Your task to perform on an android device: turn on data saver in the chrome app Image 0: 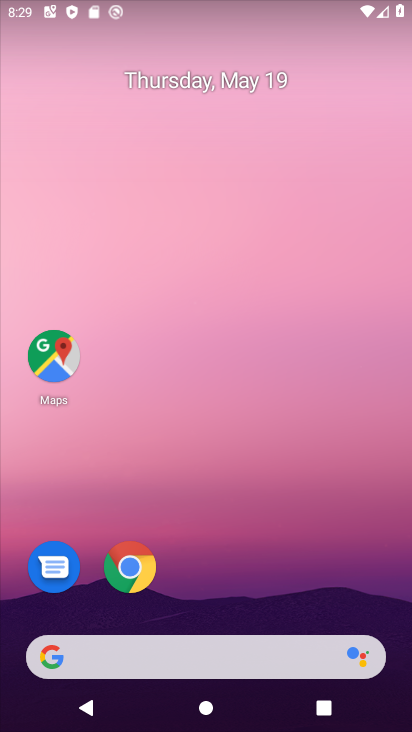
Step 0: click (137, 568)
Your task to perform on an android device: turn on data saver in the chrome app Image 1: 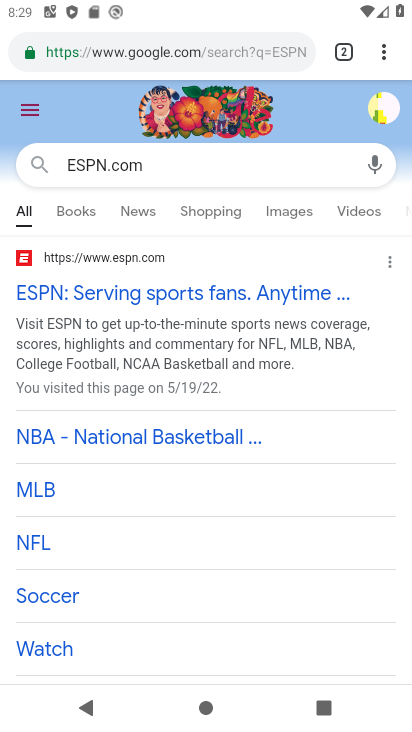
Step 1: click (392, 51)
Your task to perform on an android device: turn on data saver in the chrome app Image 2: 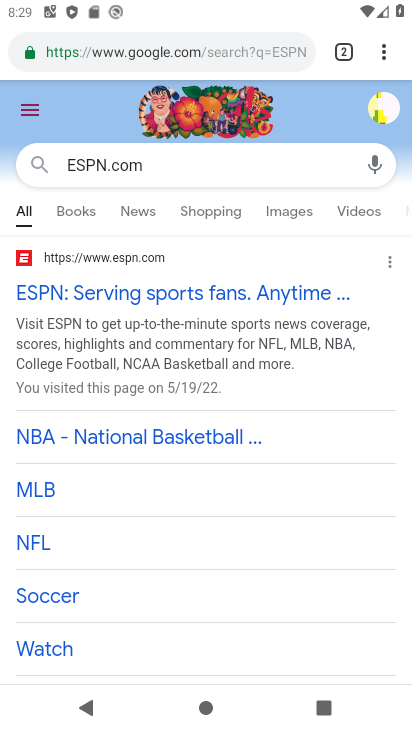
Step 2: click (385, 59)
Your task to perform on an android device: turn on data saver in the chrome app Image 3: 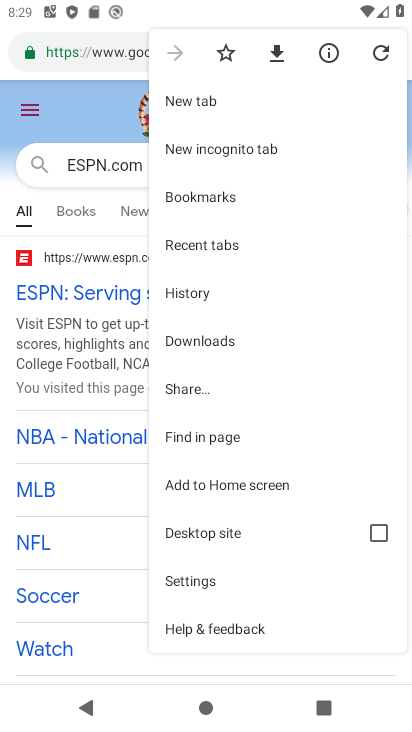
Step 3: click (203, 579)
Your task to perform on an android device: turn on data saver in the chrome app Image 4: 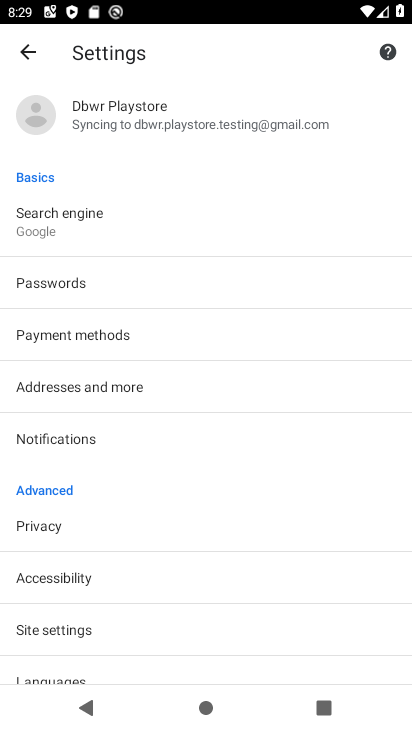
Step 4: drag from (106, 624) to (148, 364)
Your task to perform on an android device: turn on data saver in the chrome app Image 5: 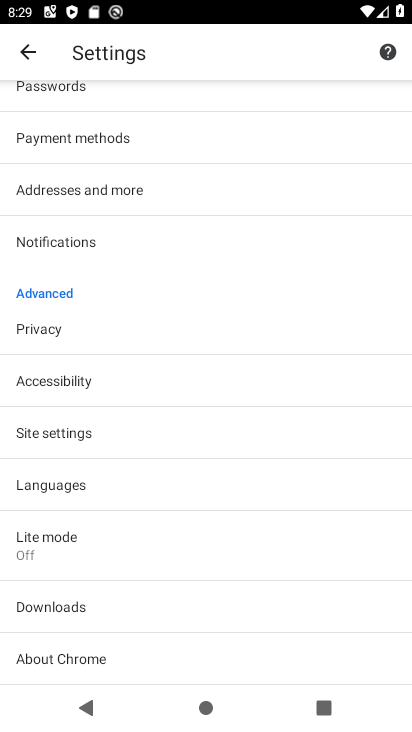
Step 5: drag from (118, 615) to (128, 318)
Your task to perform on an android device: turn on data saver in the chrome app Image 6: 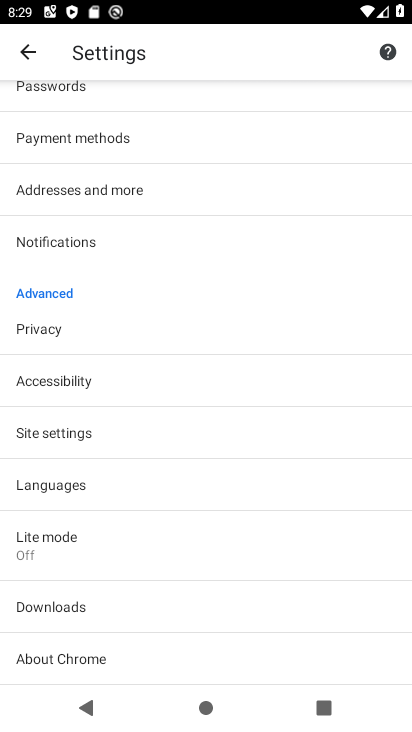
Step 6: click (62, 536)
Your task to perform on an android device: turn on data saver in the chrome app Image 7: 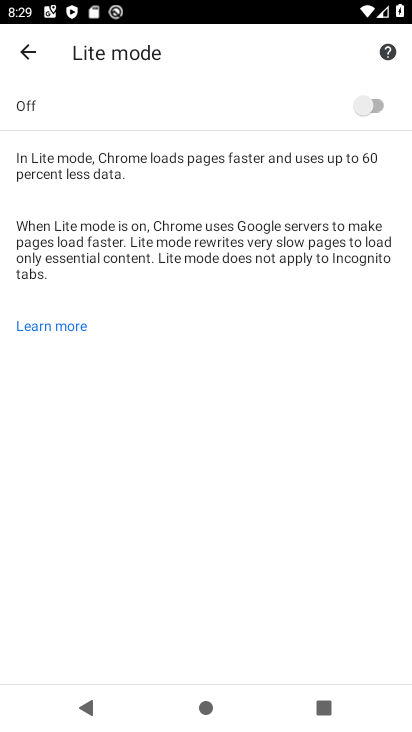
Step 7: click (382, 103)
Your task to perform on an android device: turn on data saver in the chrome app Image 8: 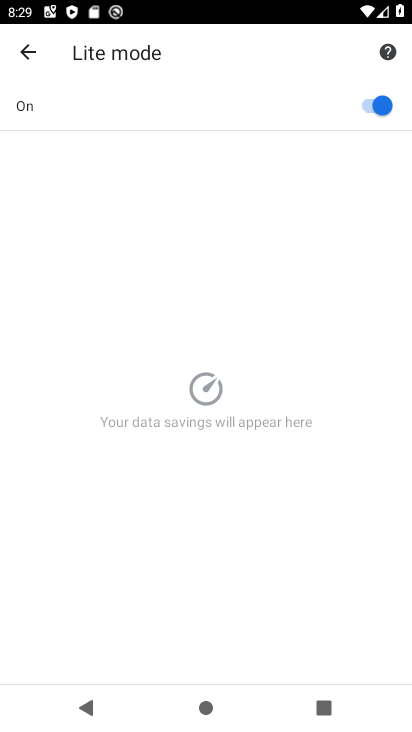
Step 8: task complete